Your task to perform on an android device: open app "Move to iOS" Image 0: 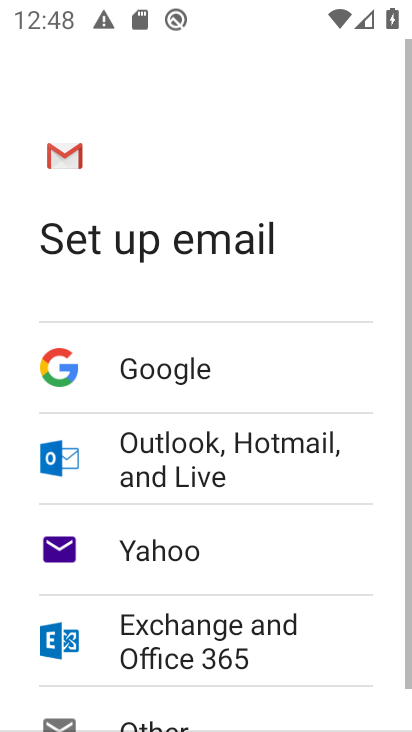
Step 0: press home button
Your task to perform on an android device: open app "Move to iOS" Image 1: 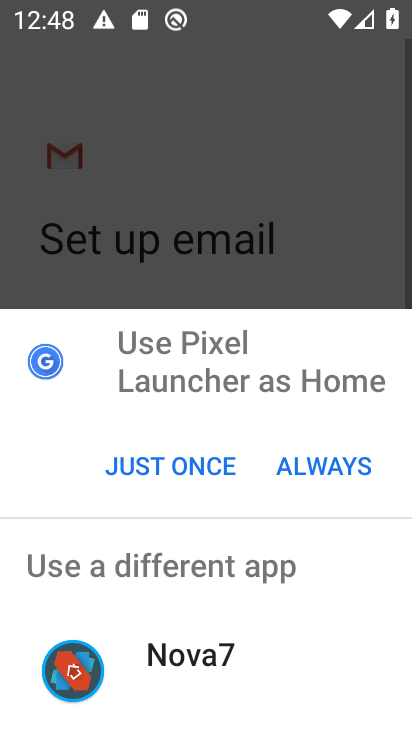
Step 1: press back button
Your task to perform on an android device: open app "Move to iOS" Image 2: 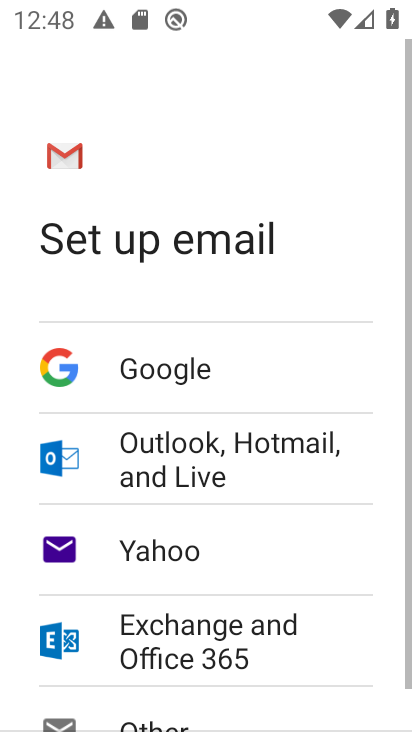
Step 2: press back button
Your task to perform on an android device: open app "Move to iOS" Image 3: 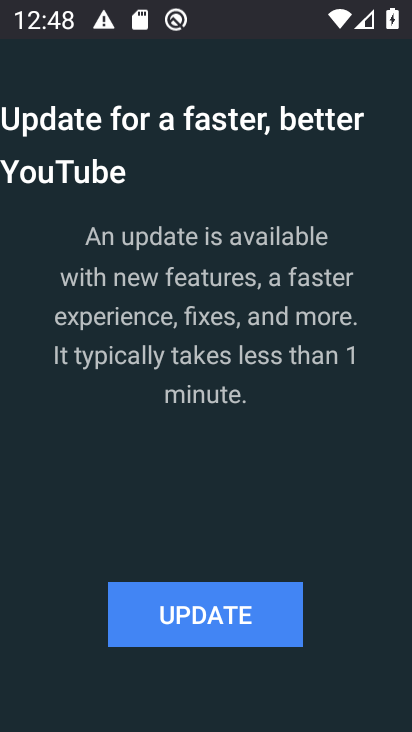
Step 3: press home button
Your task to perform on an android device: open app "Move to iOS" Image 4: 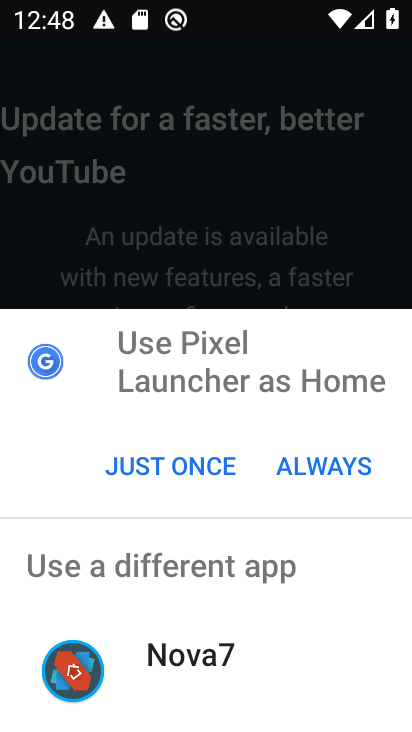
Step 4: click (188, 461)
Your task to perform on an android device: open app "Move to iOS" Image 5: 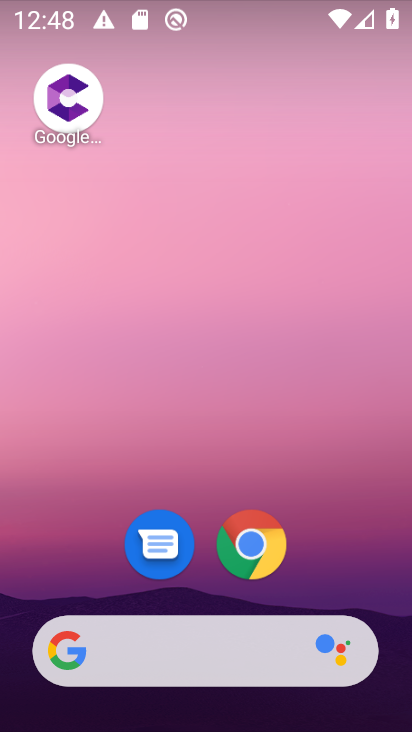
Step 5: drag from (358, 563) to (245, 23)
Your task to perform on an android device: open app "Move to iOS" Image 6: 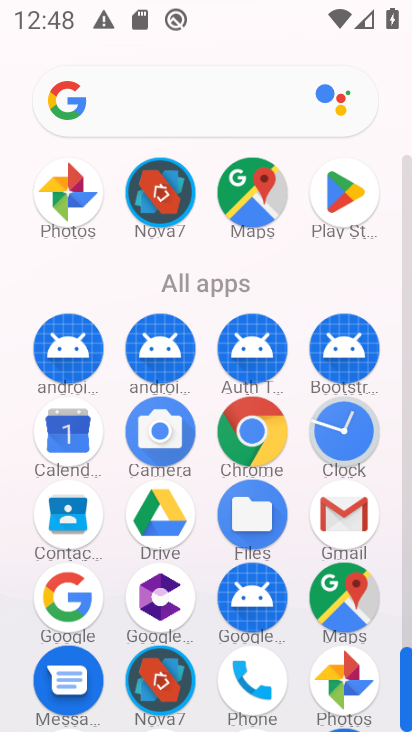
Step 6: click (340, 210)
Your task to perform on an android device: open app "Move to iOS" Image 7: 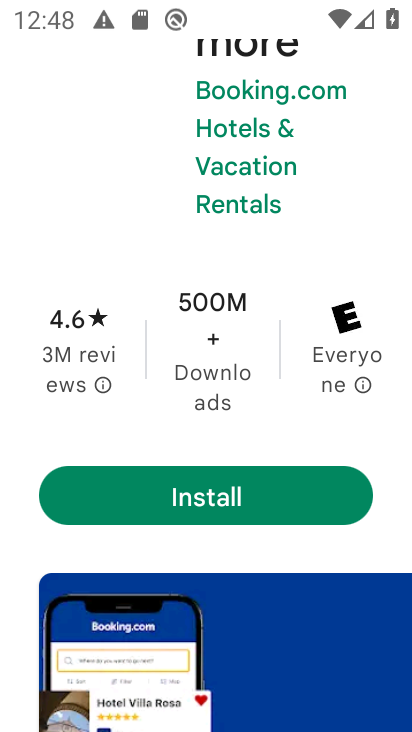
Step 7: press back button
Your task to perform on an android device: open app "Move to iOS" Image 8: 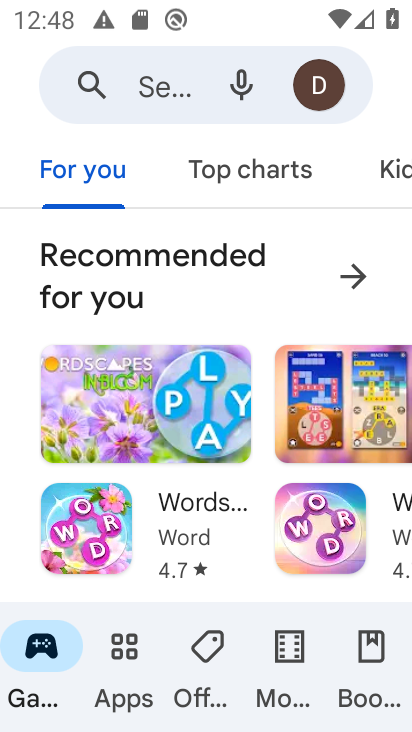
Step 8: click (146, 91)
Your task to perform on an android device: open app "Move to iOS" Image 9: 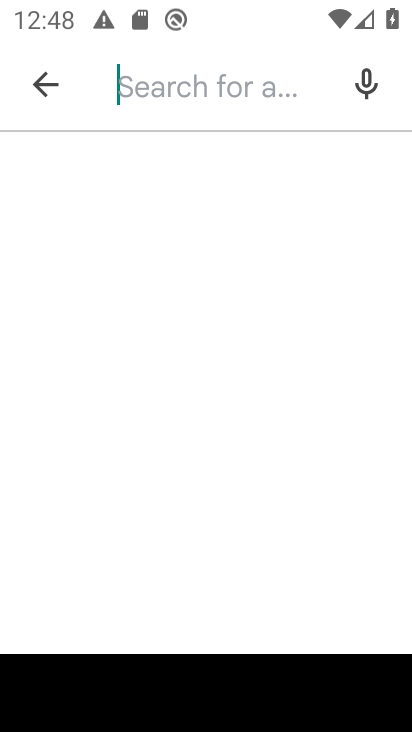
Step 9: type "Move to iOS"
Your task to perform on an android device: open app "Move to iOS" Image 10: 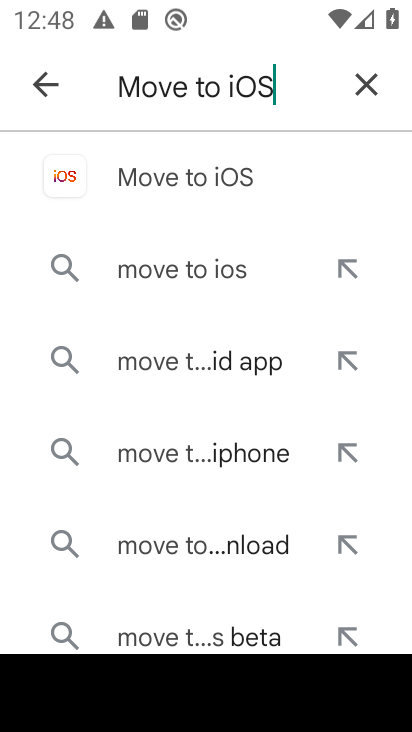
Step 10: click (165, 175)
Your task to perform on an android device: open app "Move to iOS" Image 11: 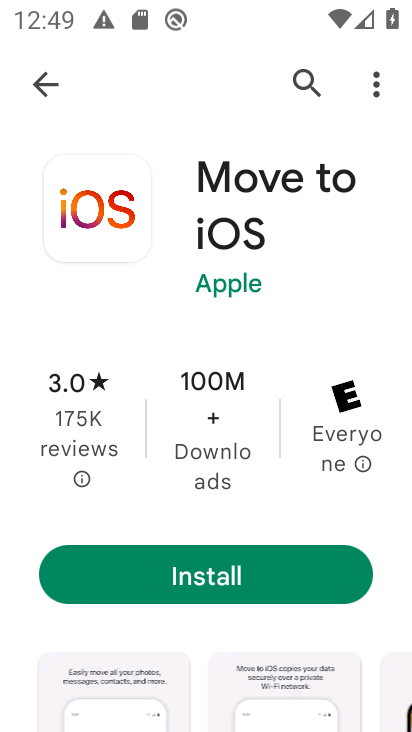
Step 11: task complete